Your task to perform on an android device: How much does a 2 bedroom apartment rent for in Los Angeles? Image 0: 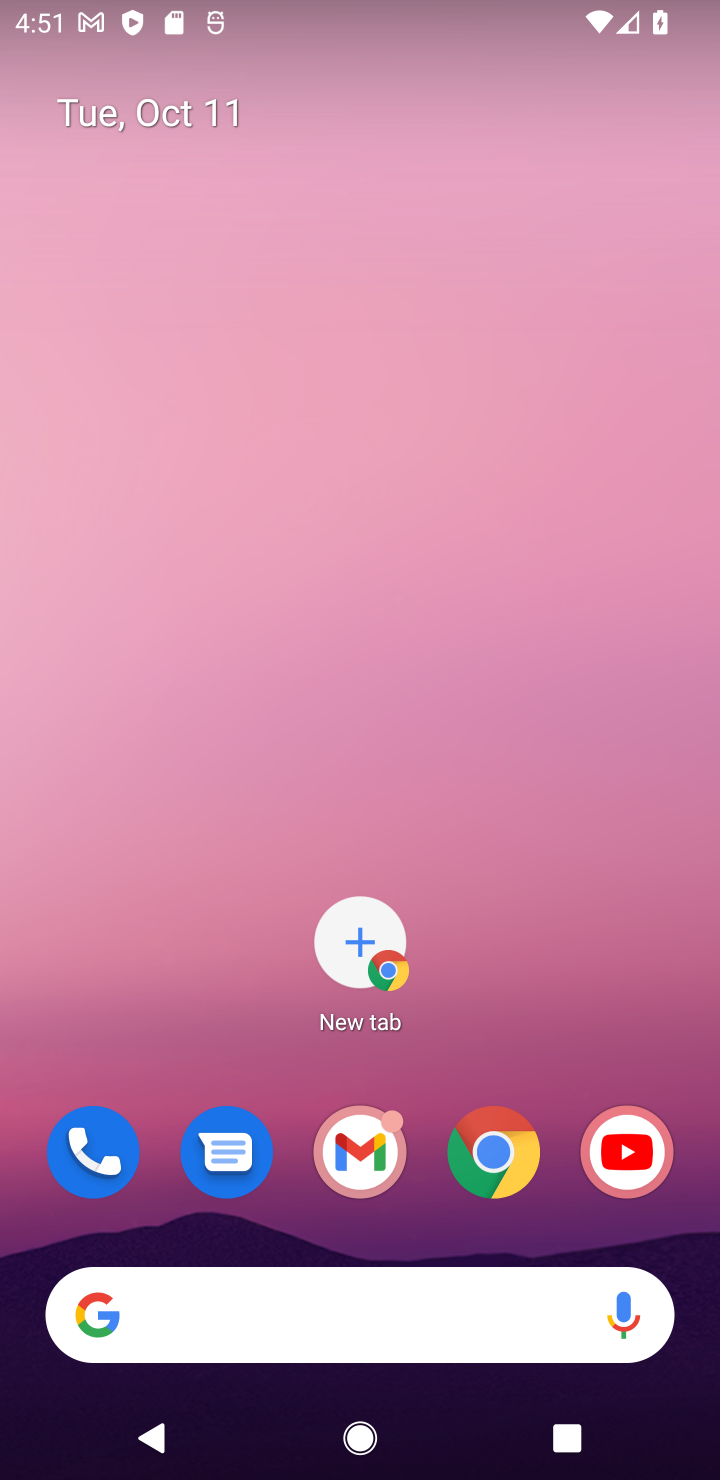
Step 0: click (482, 1141)
Your task to perform on an android device: How much does a 2 bedroom apartment rent for in Los Angeles? Image 1: 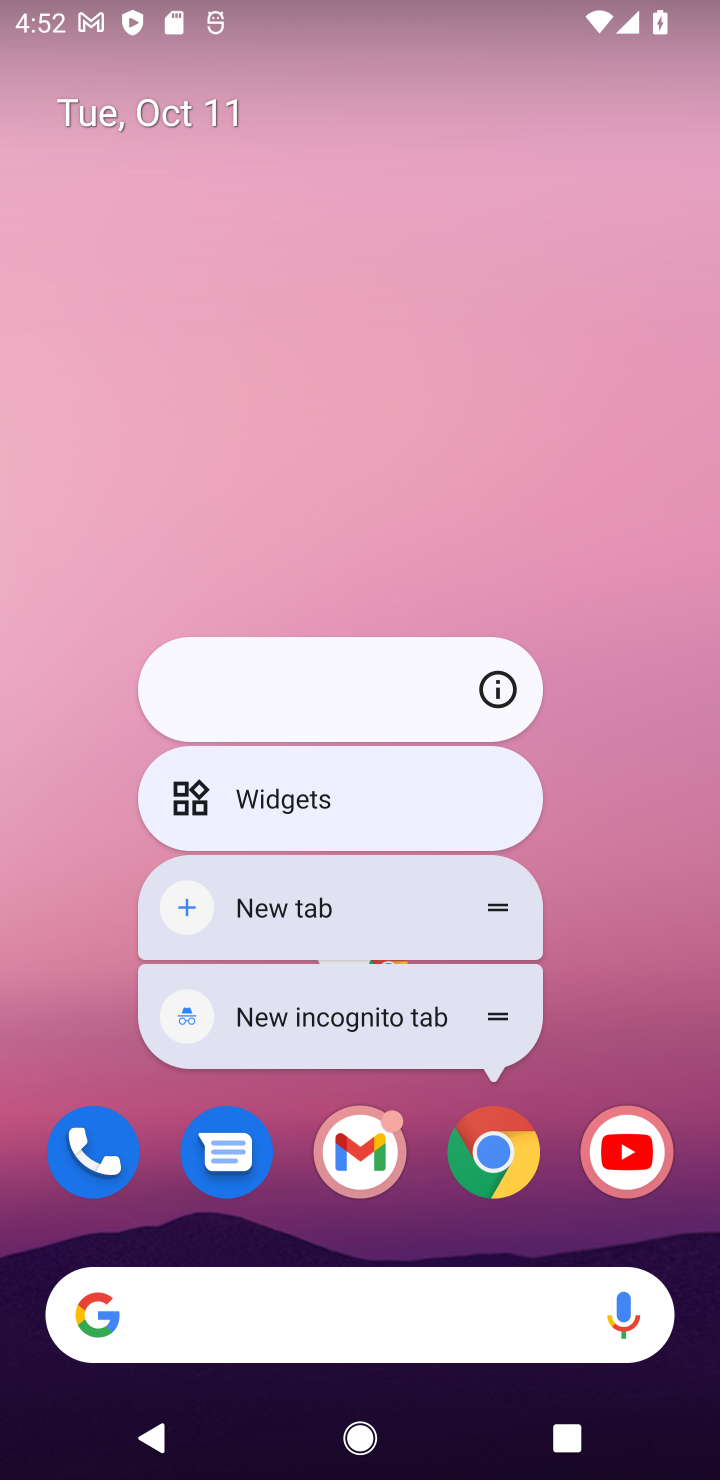
Step 1: click (321, 1230)
Your task to perform on an android device: How much does a 2 bedroom apartment rent for in Los Angeles? Image 2: 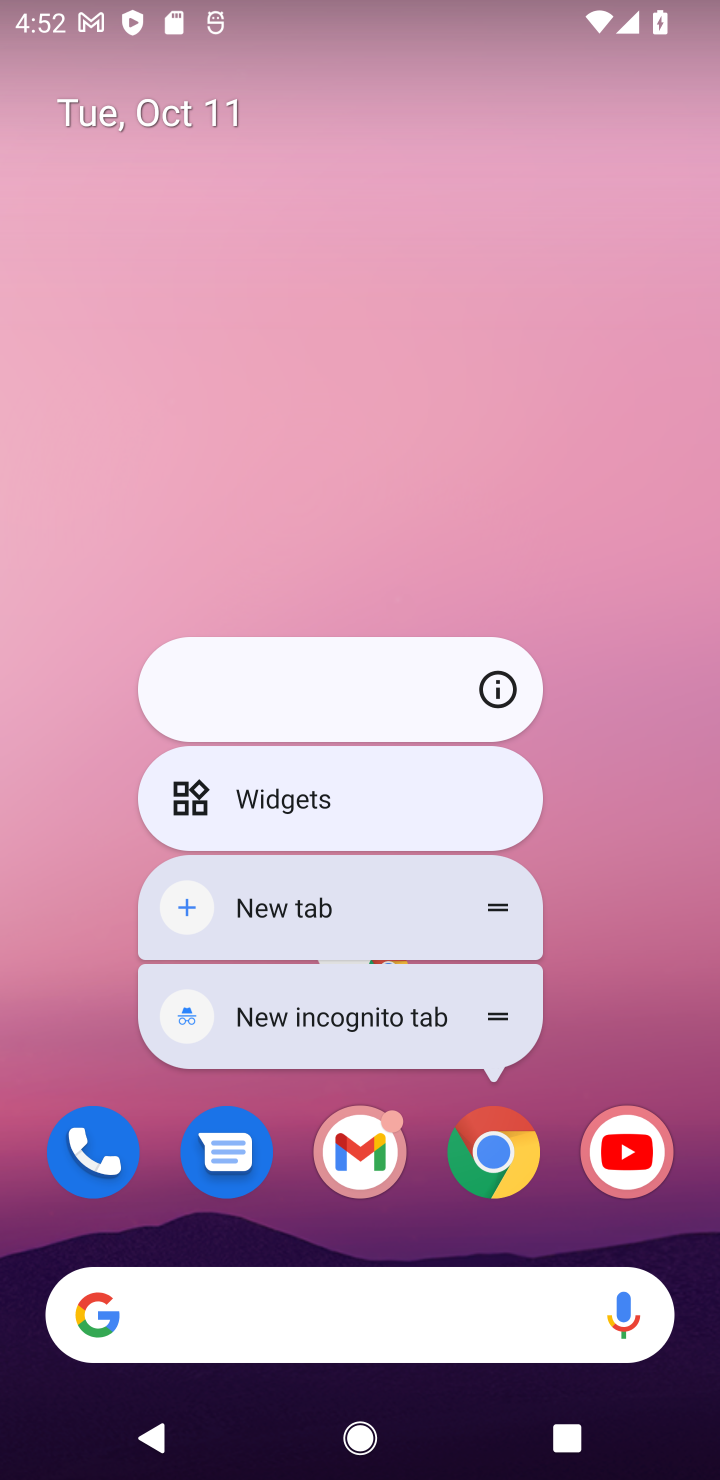
Step 2: drag from (310, 1172) to (540, 14)
Your task to perform on an android device: How much does a 2 bedroom apartment rent for in Los Angeles? Image 3: 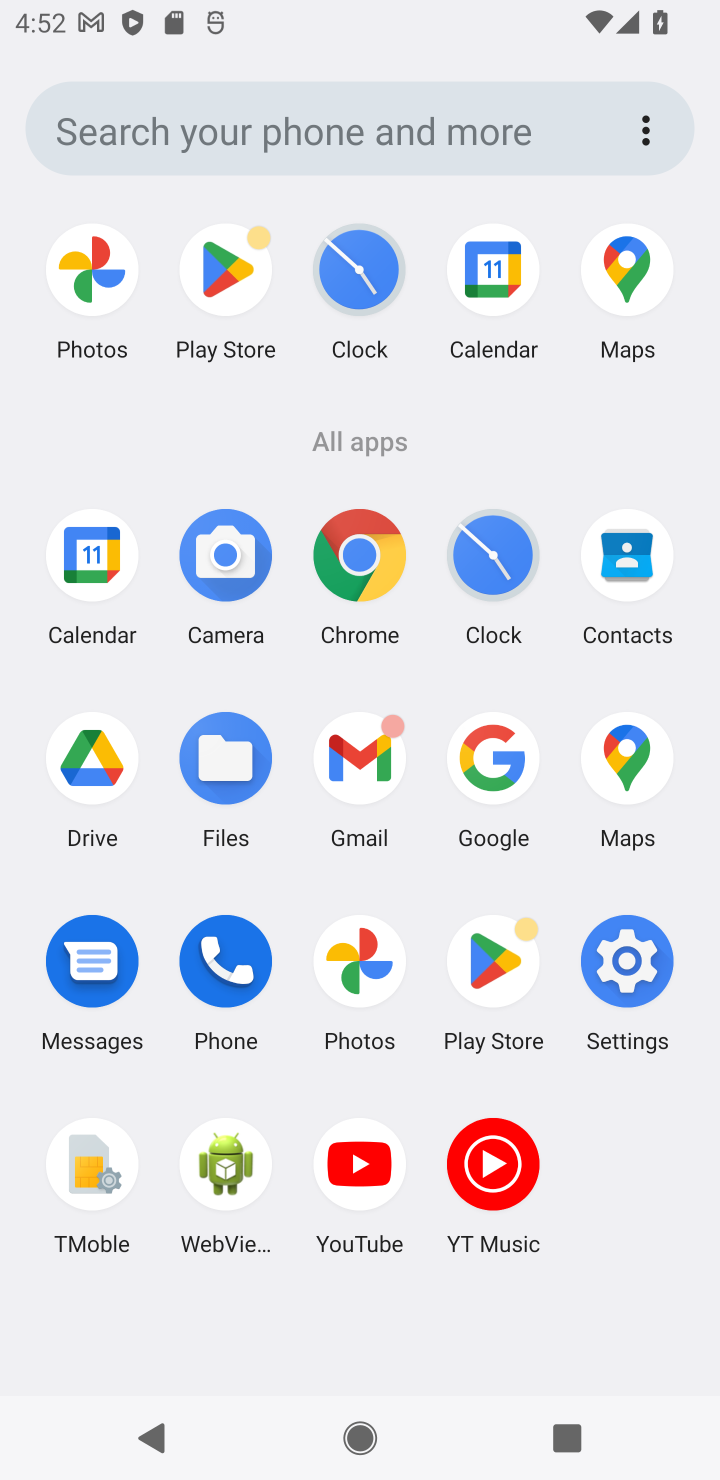
Step 3: click (352, 563)
Your task to perform on an android device: How much does a 2 bedroom apartment rent for in Los Angeles? Image 4: 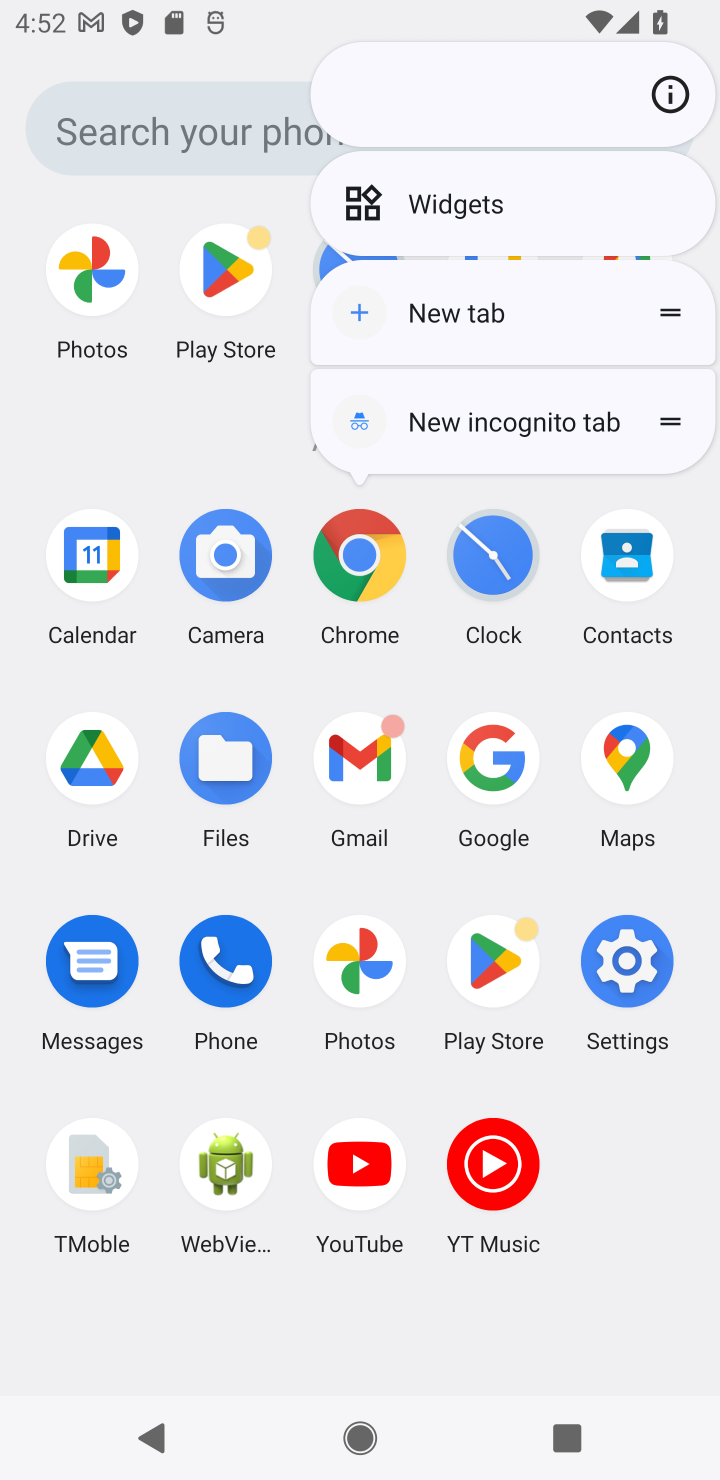
Step 4: click (352, 584)
Your task to perform on an android device: How much does a 2 bedroom apartment rent for in Los Angeles? Image 5: 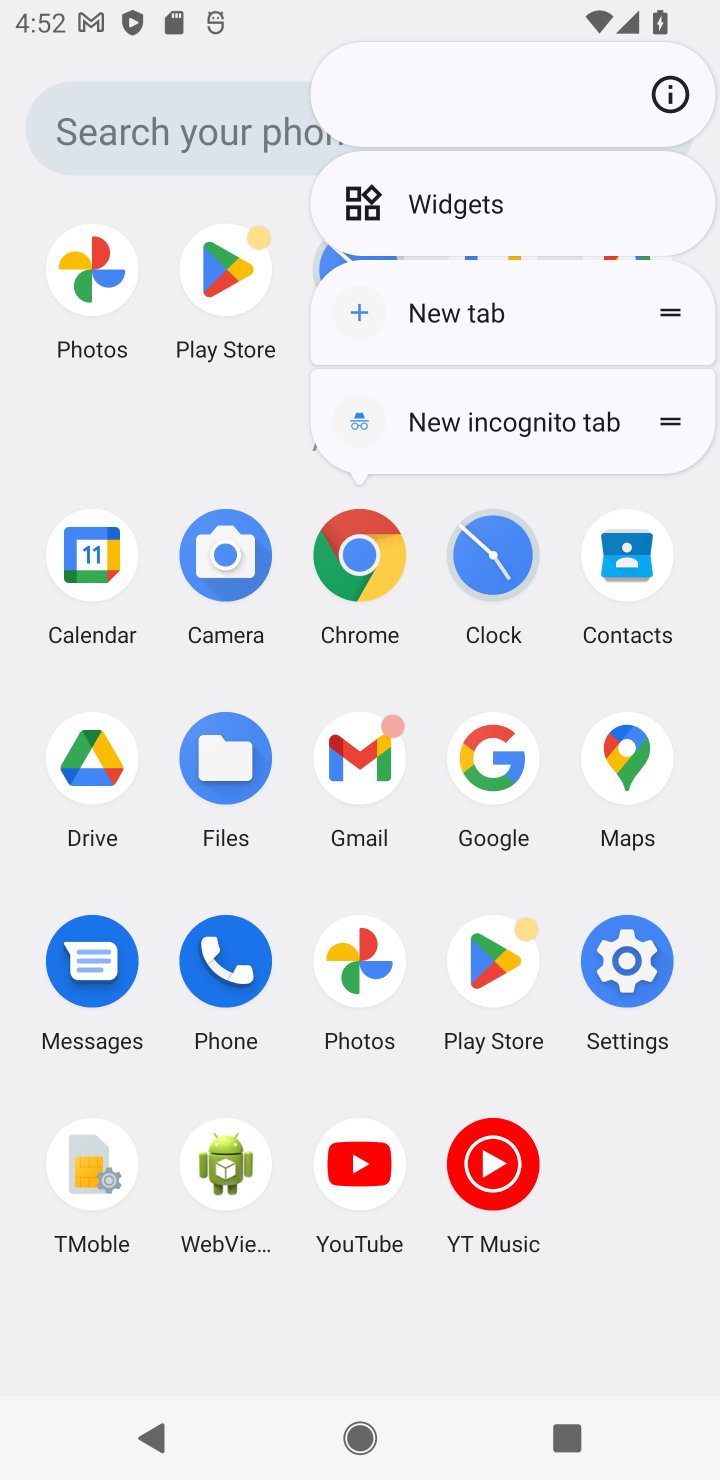
Step 5: click (392, 506)
Your task to perform on an android device: How much does a 2 bedroom apartment rent for in Los Angeles? Image 6: 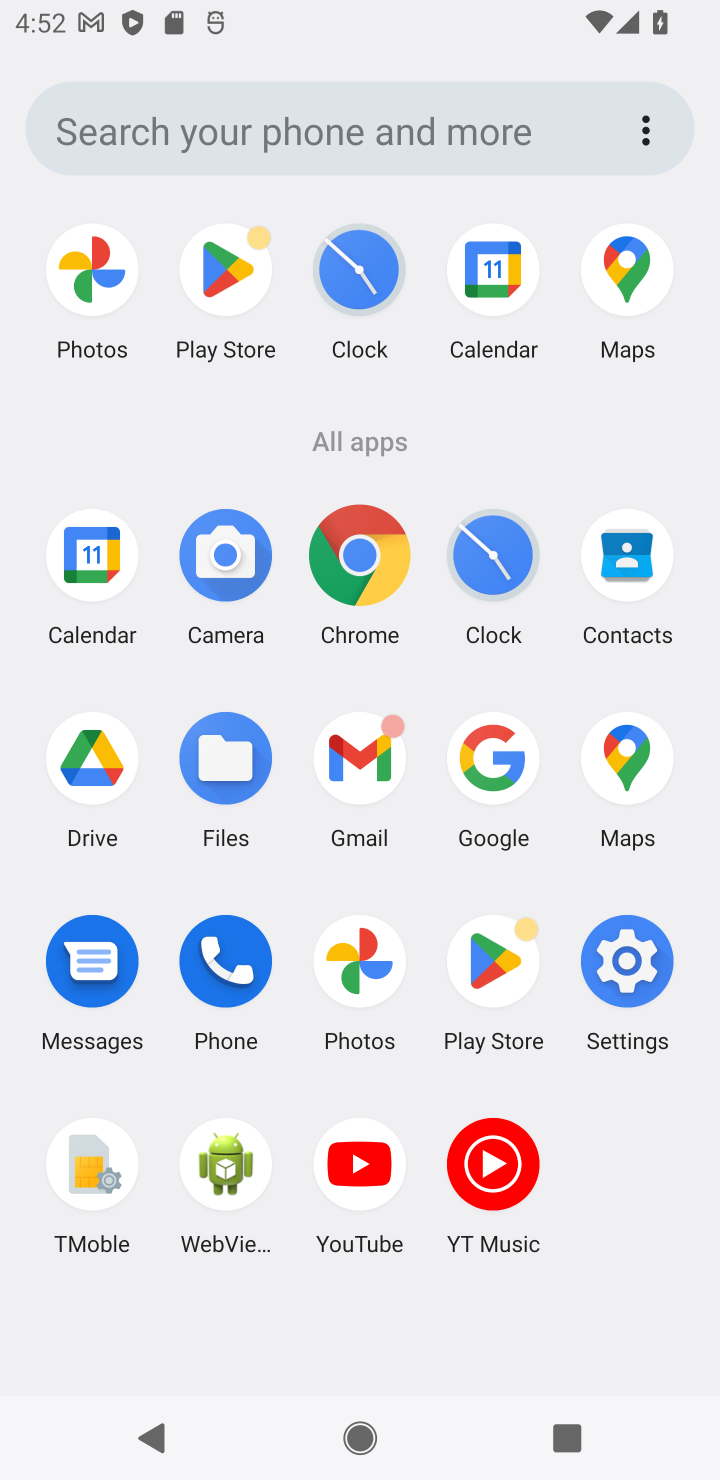
Step 6: click (357, 559)
Your task to perform on an android device: How much does a 2 bedroom apartment rent for in Los Angeles? Image 7: 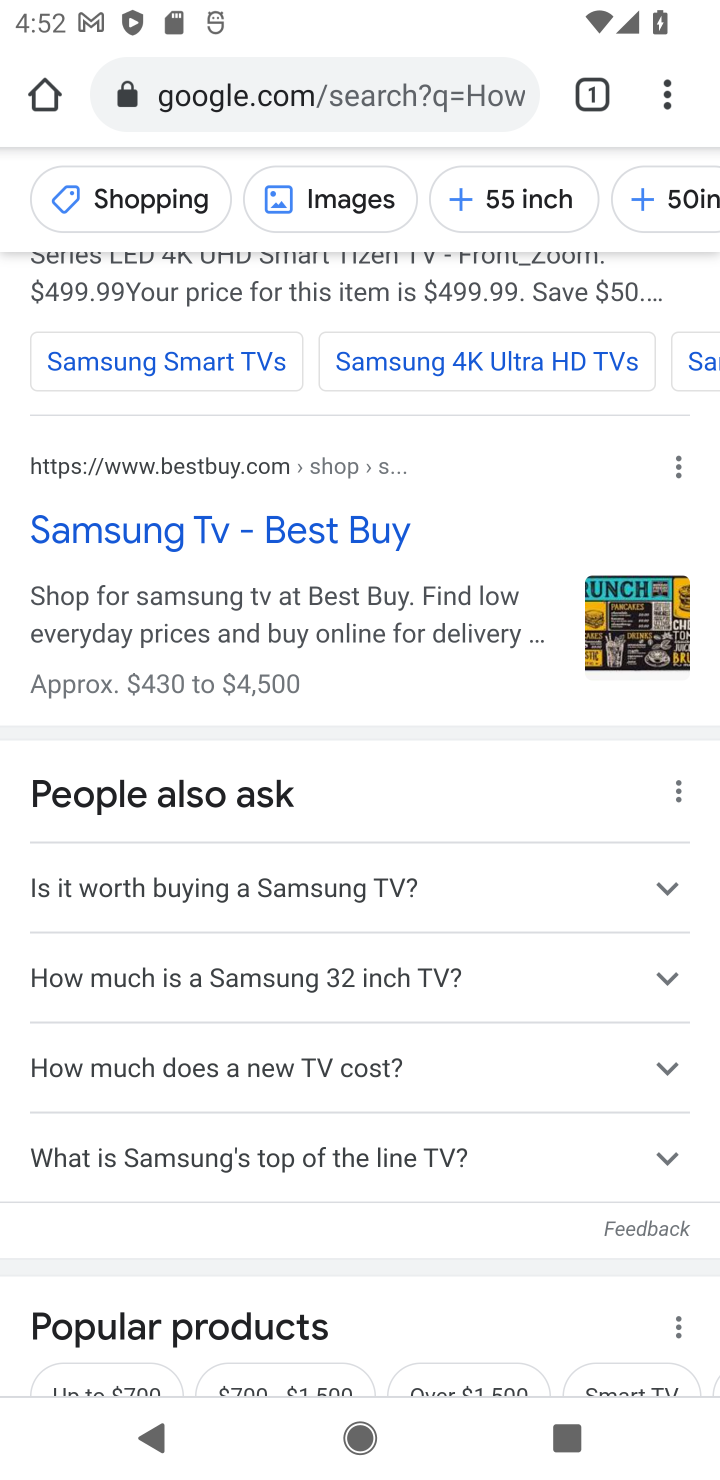
Step 7: click (205, 94)
Your task to perform on an android device: How much does a 2 bedroom apartment rent for in Los Angeles? Image 8: 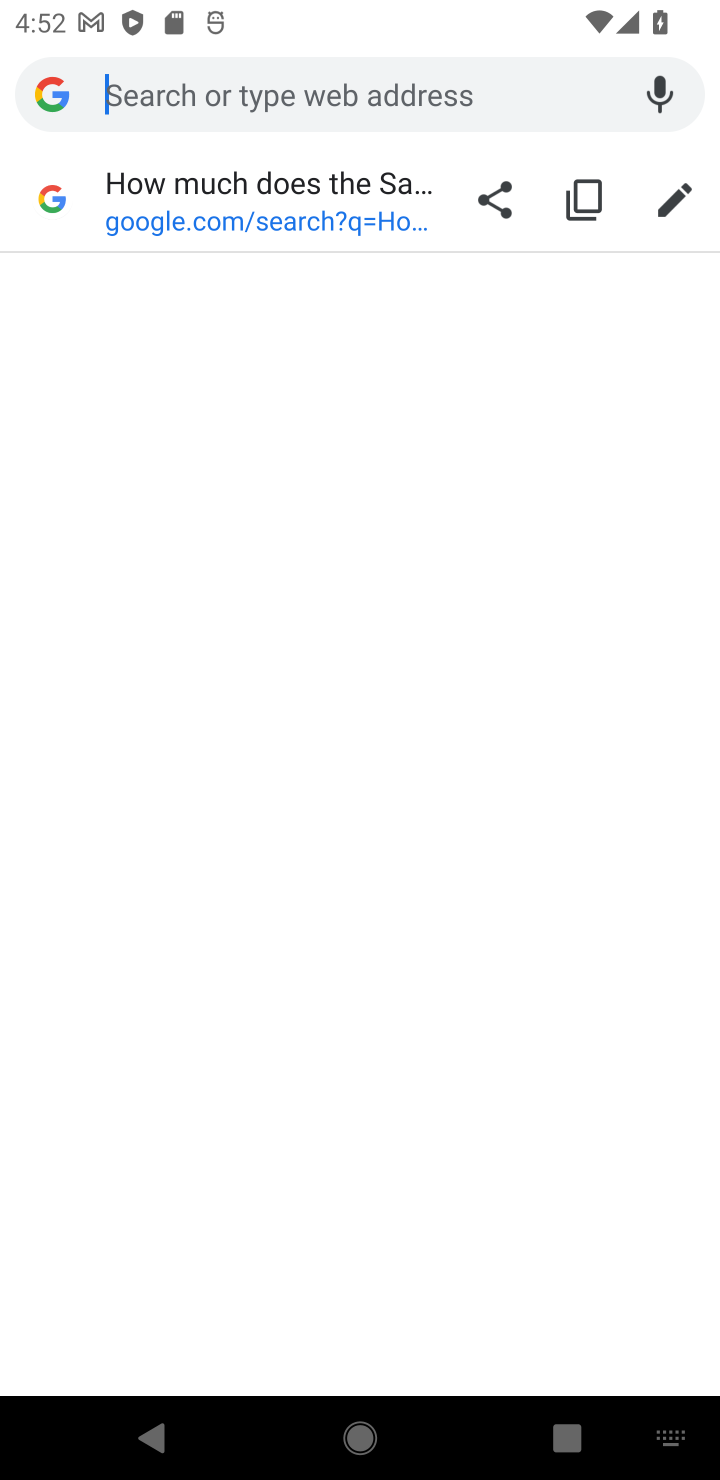
Step 8: type "How much does a 2 bedroom apartment rent for in Los Angeles?"
Your task to perform on an android device: How much does a 2 bedroom apartment rent for in Los Angeles? Image 9: 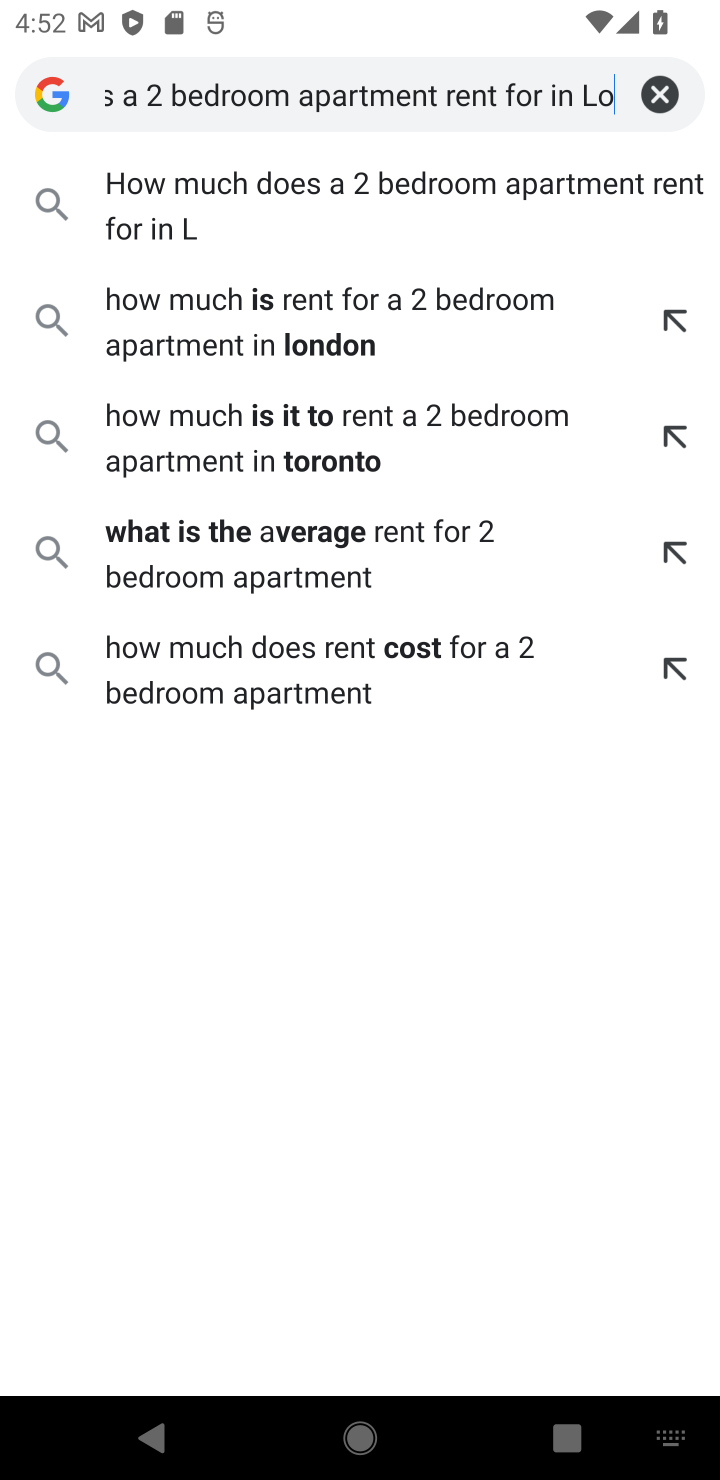
Step 9: type ""
Your task to perform on an android device: How much does a 2 bedroom apartment rent for in Los Angeles? Image 10: 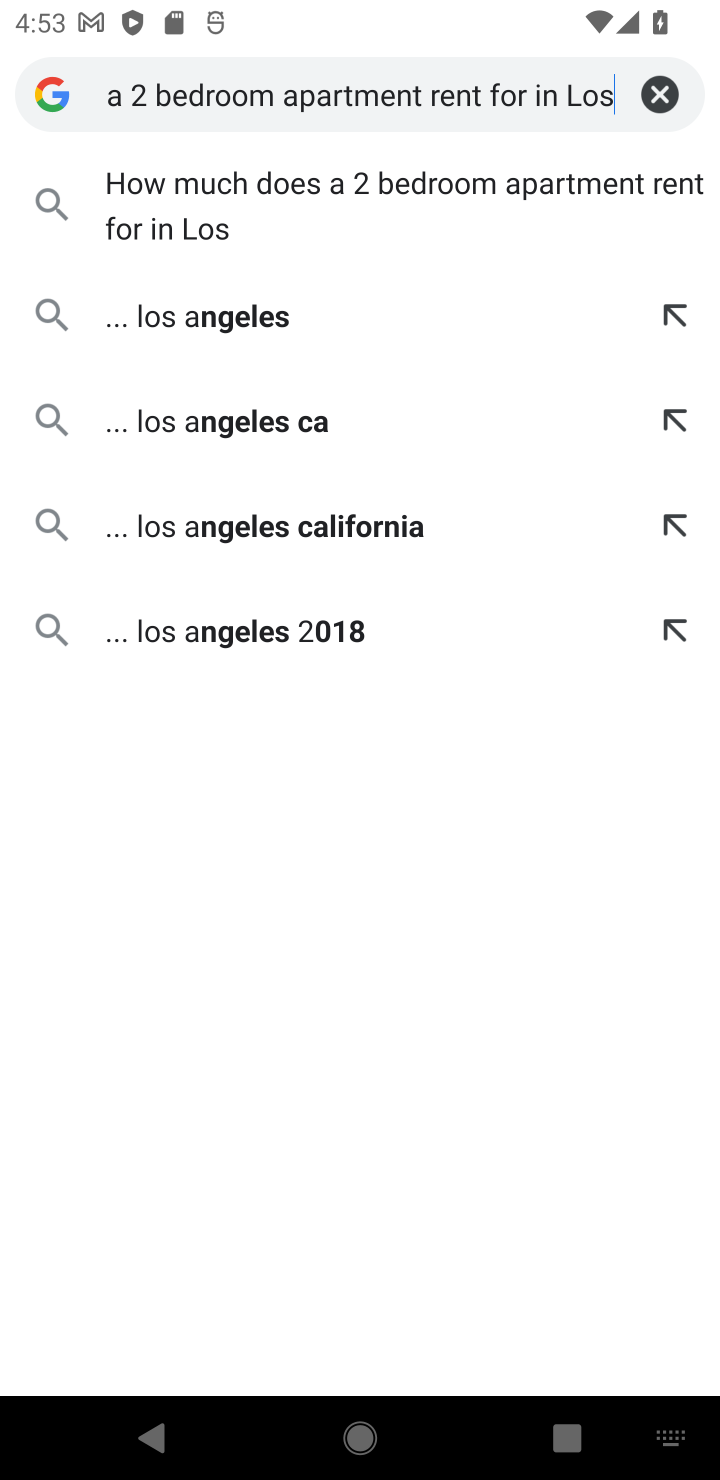
Step 10: press enter
Your task to perform on an android device: How much does a 2 bedroom apartment rent for in Los Angeles? Image 11: 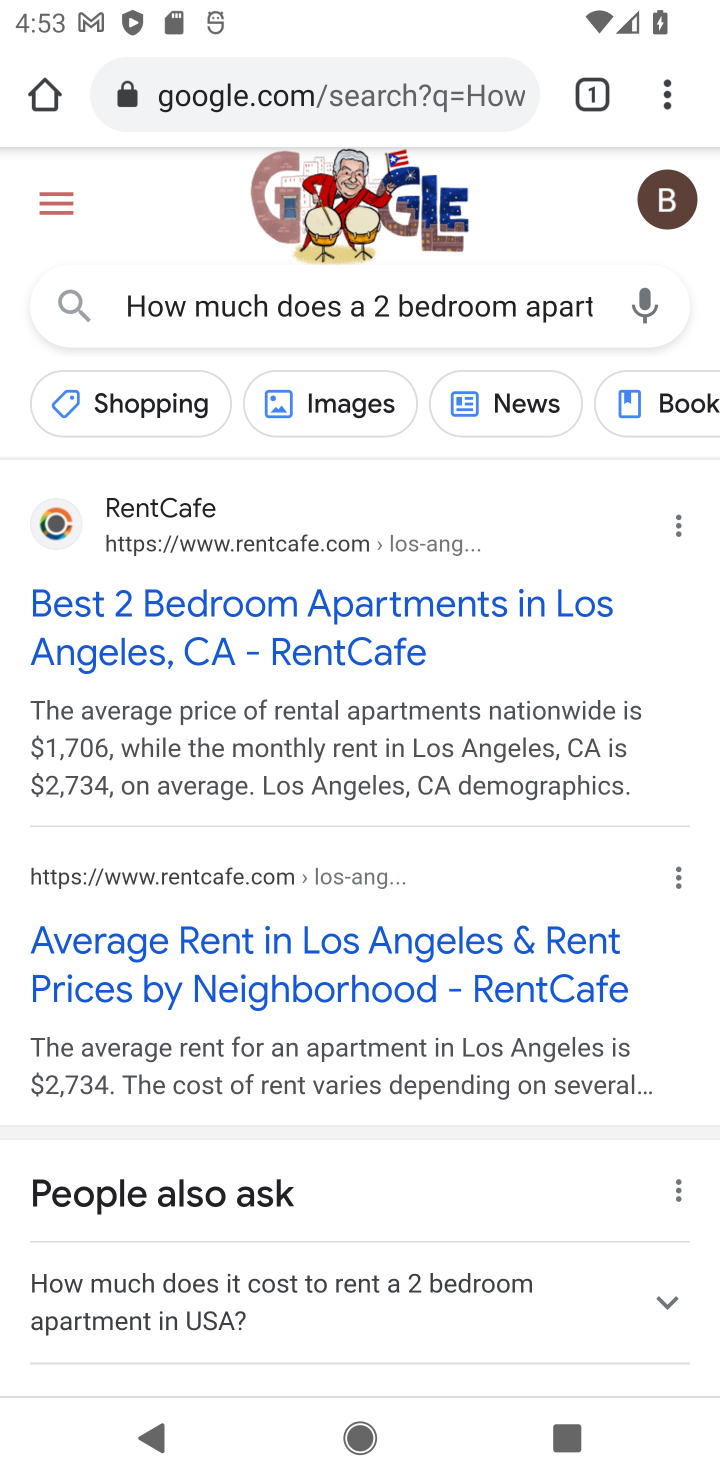
Step 11: click (110, 608)
Your task to perform on an android device: How much does a 2 bedroom apartment rent for in Los Angeles? Image 12: 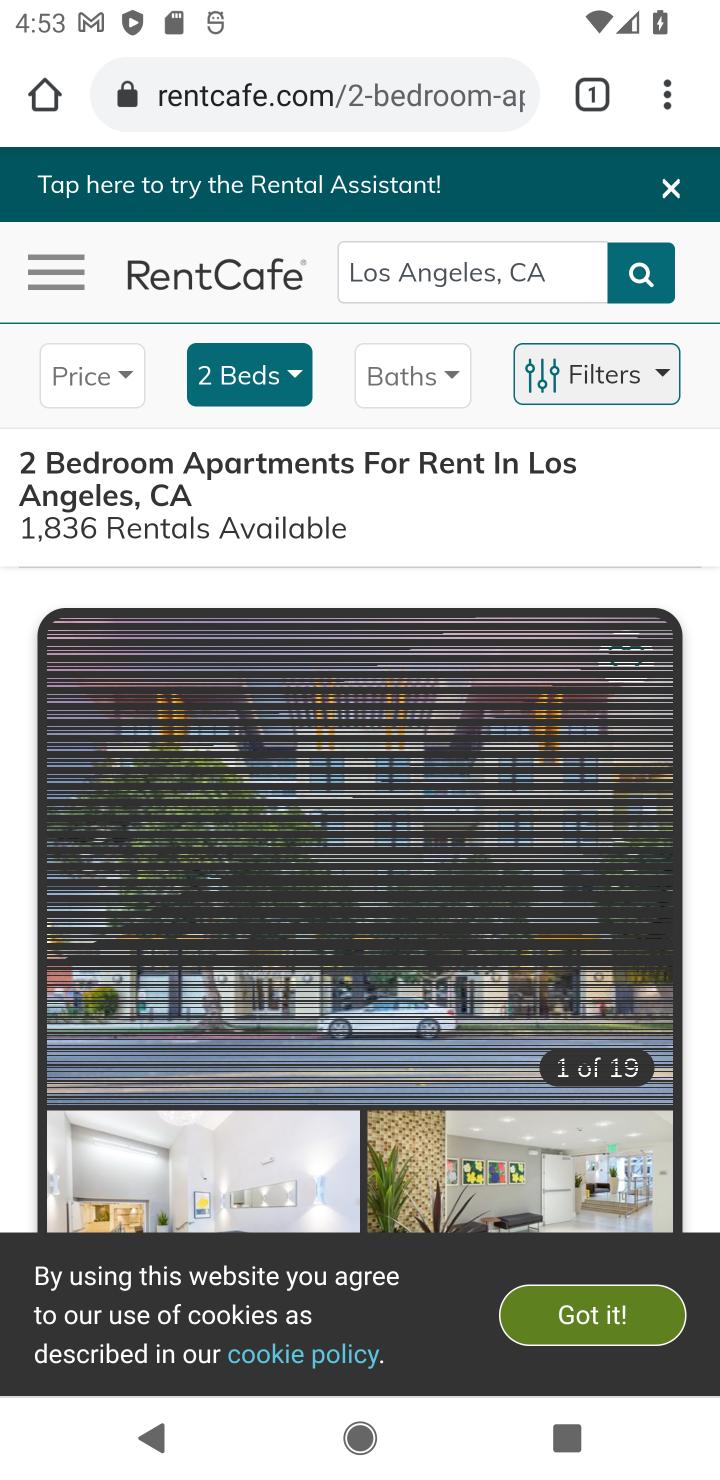
Step 12: drag from (437, 956) to (478, 428)
Your task to perform on an android device: How much does a 2 bedroom apartment rent for in Los Angeles? Image 13: 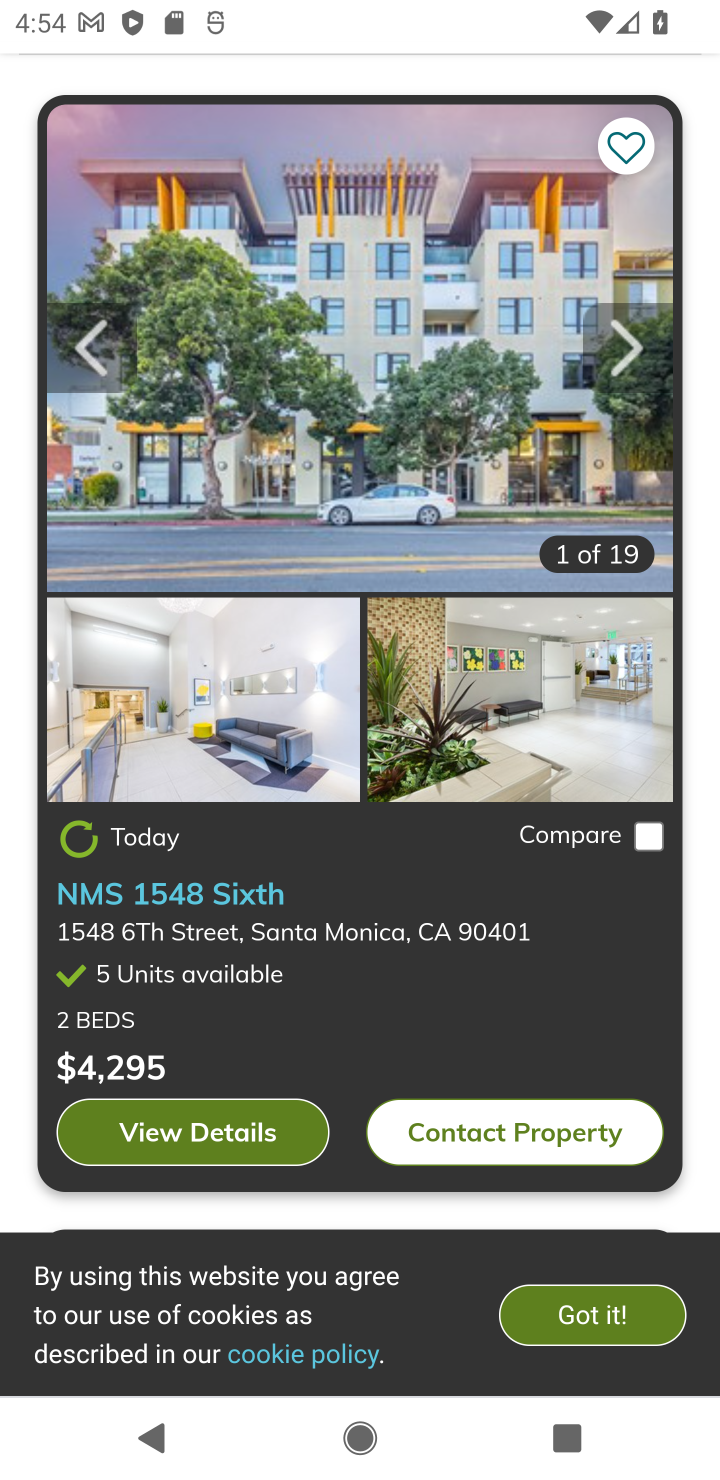
Step 13: drag from (559, 461) to (378, 434)
Your task to perform on an android device: How much does a 2 bedroom apartment rent for in Los Angeles? Image 14: 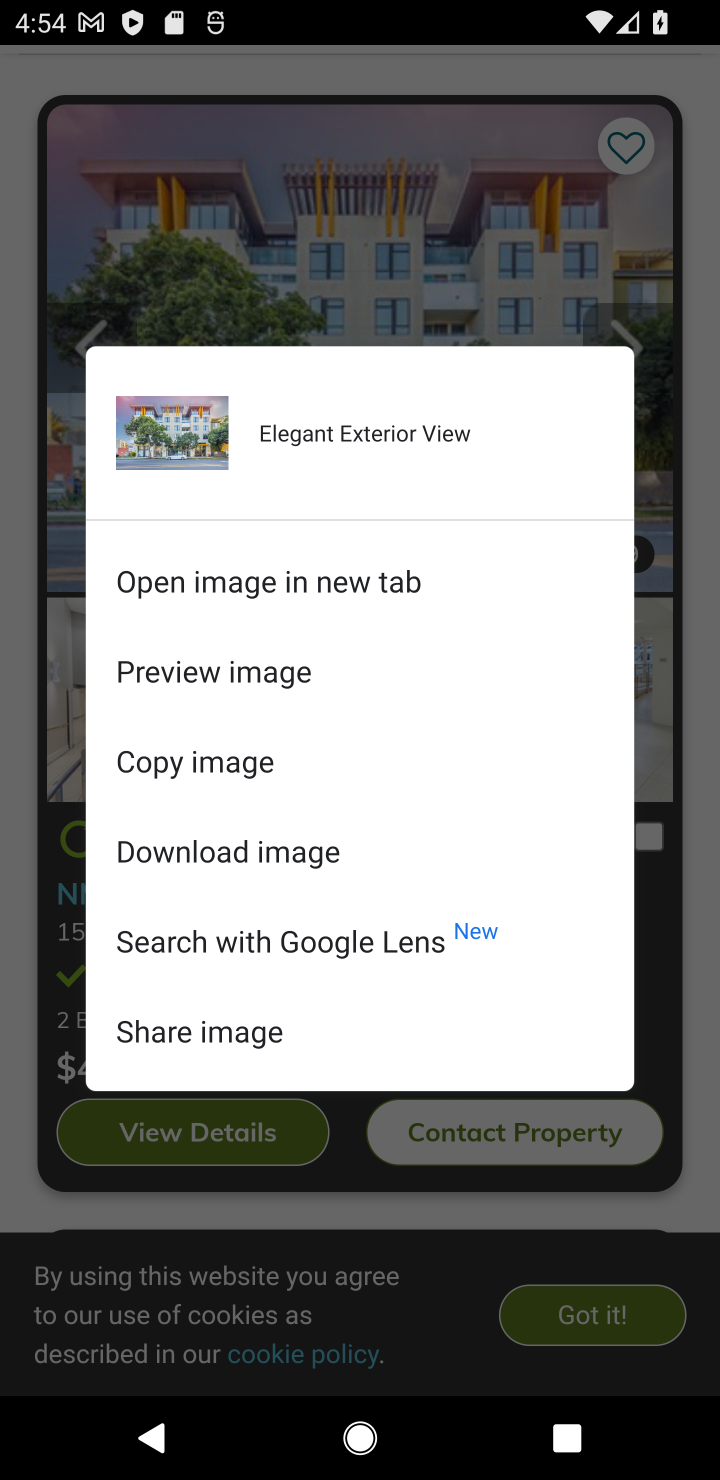
Step 14: click (455, 252)
Your task to perform on an android device: How much does a 2 bedroom apartment rent for in Los Angeles? Image 15: 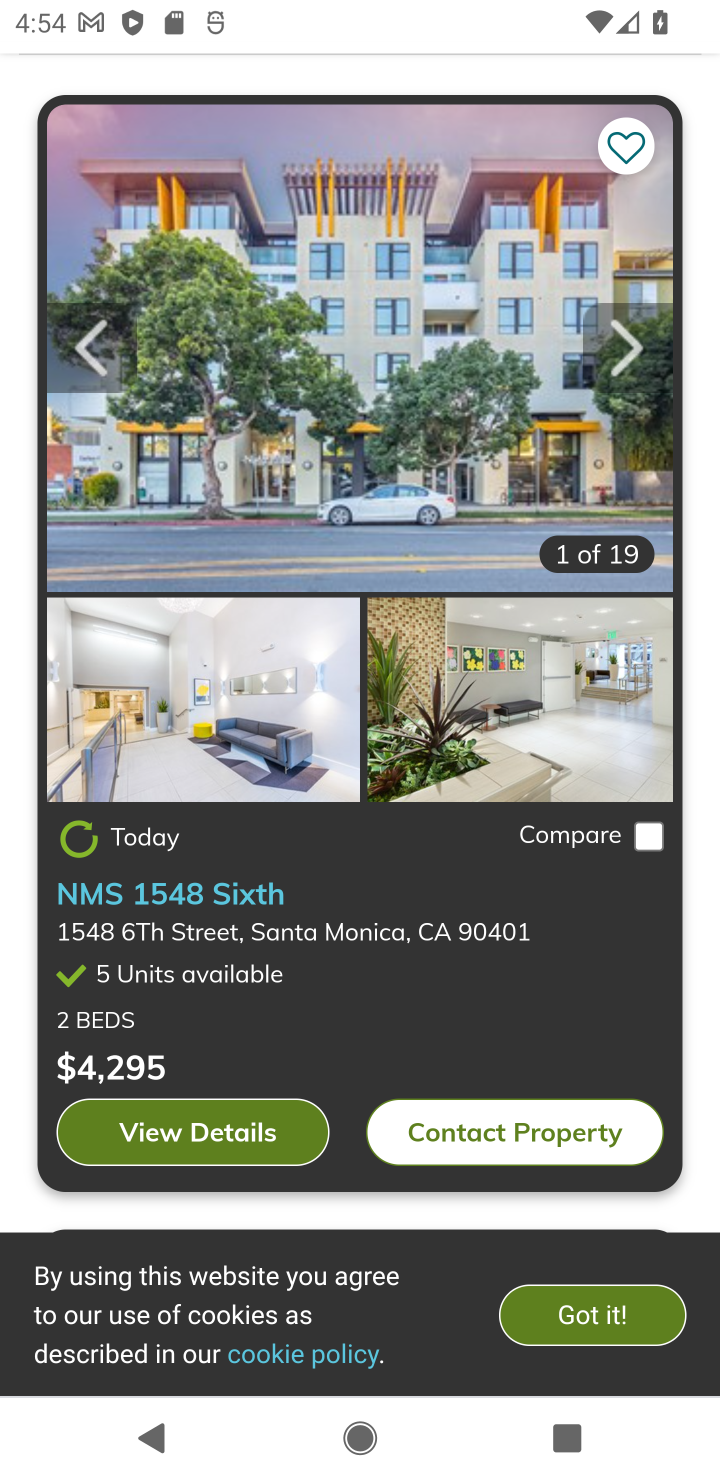
Step 15: click (432, 61)
Your task to perform on an android device: How much does a 2 bedroom apartment rent for in Los Angeles? Image 16: 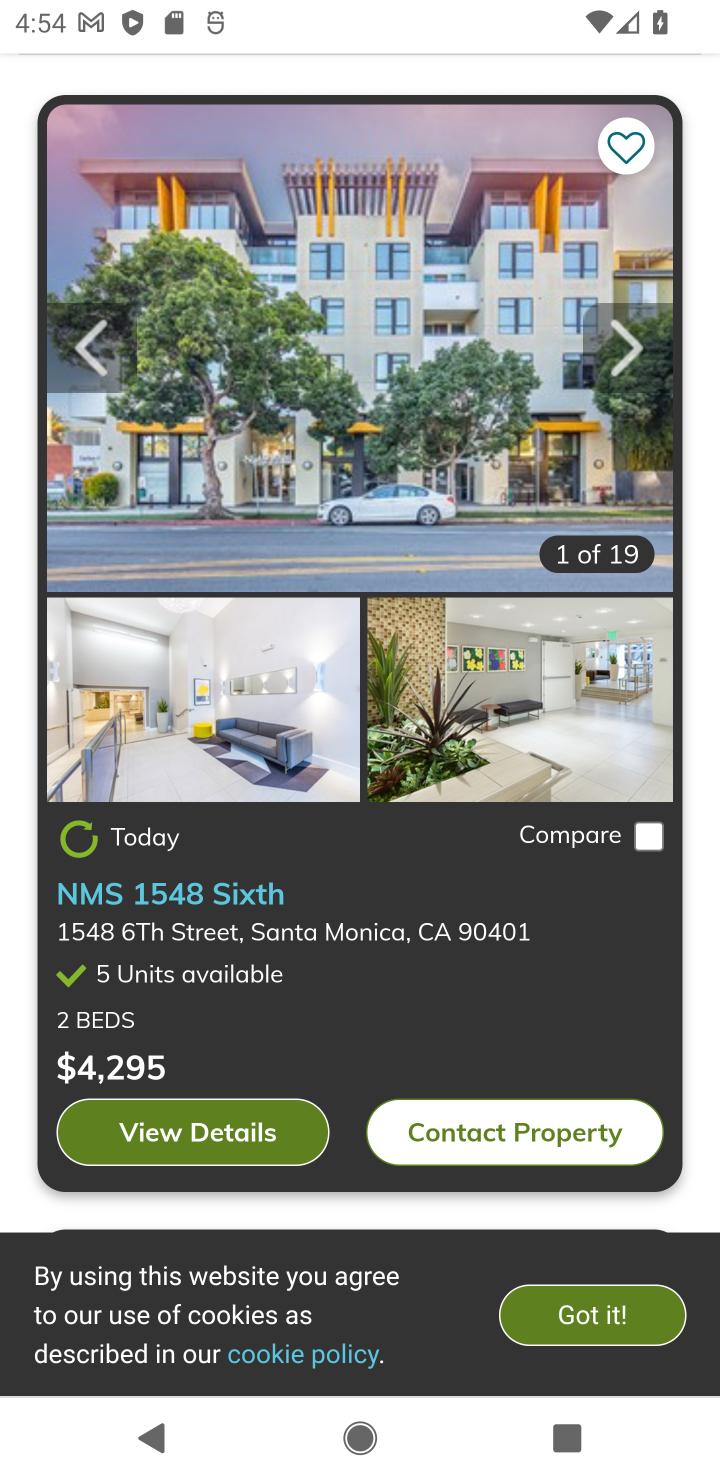
Step 16: click (296, 161)
Your task to perform on an android device: How much does a 2 bedroom apartment rent for in Los Angeles? Image 17: 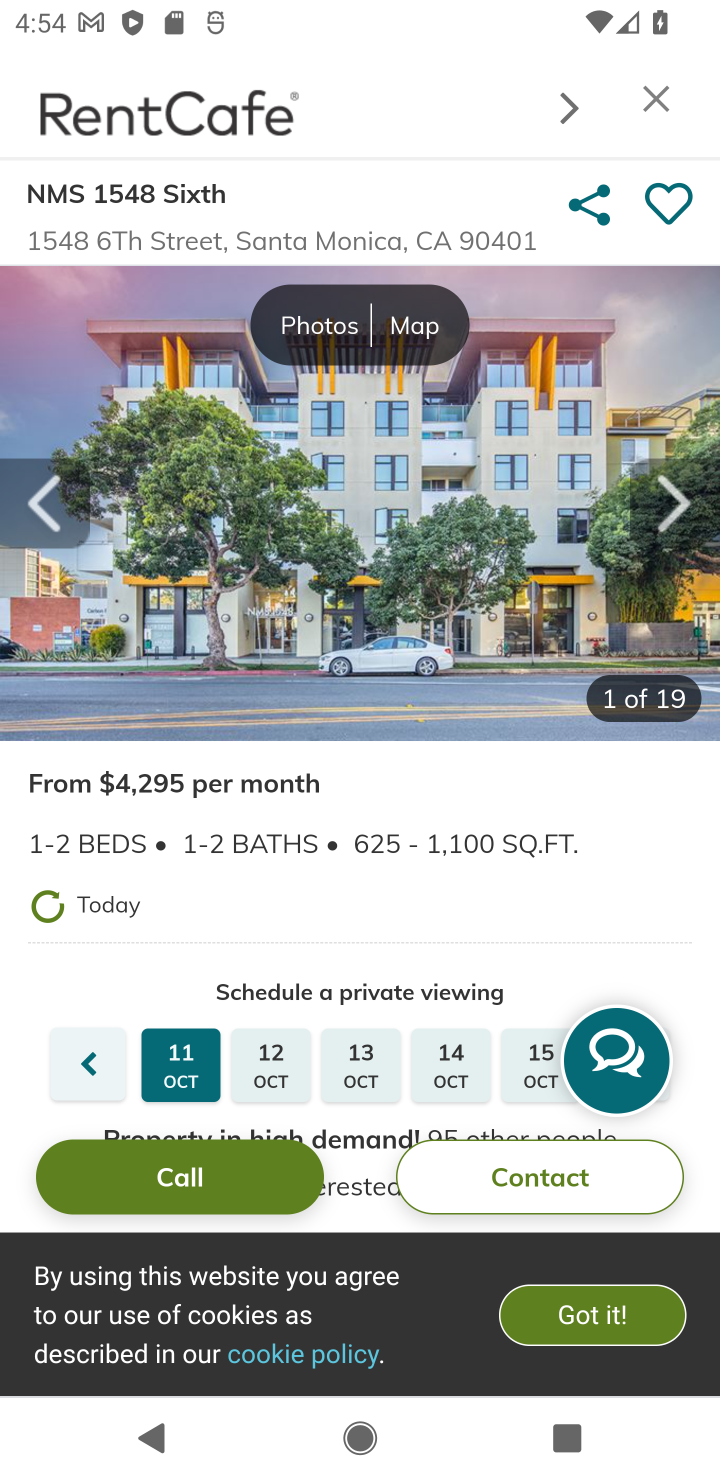
Step 17: click (458, 326)
Your task to perform on an android device: How much does a 2 bedroom apartment rent for in Los Angeles? Image 18: 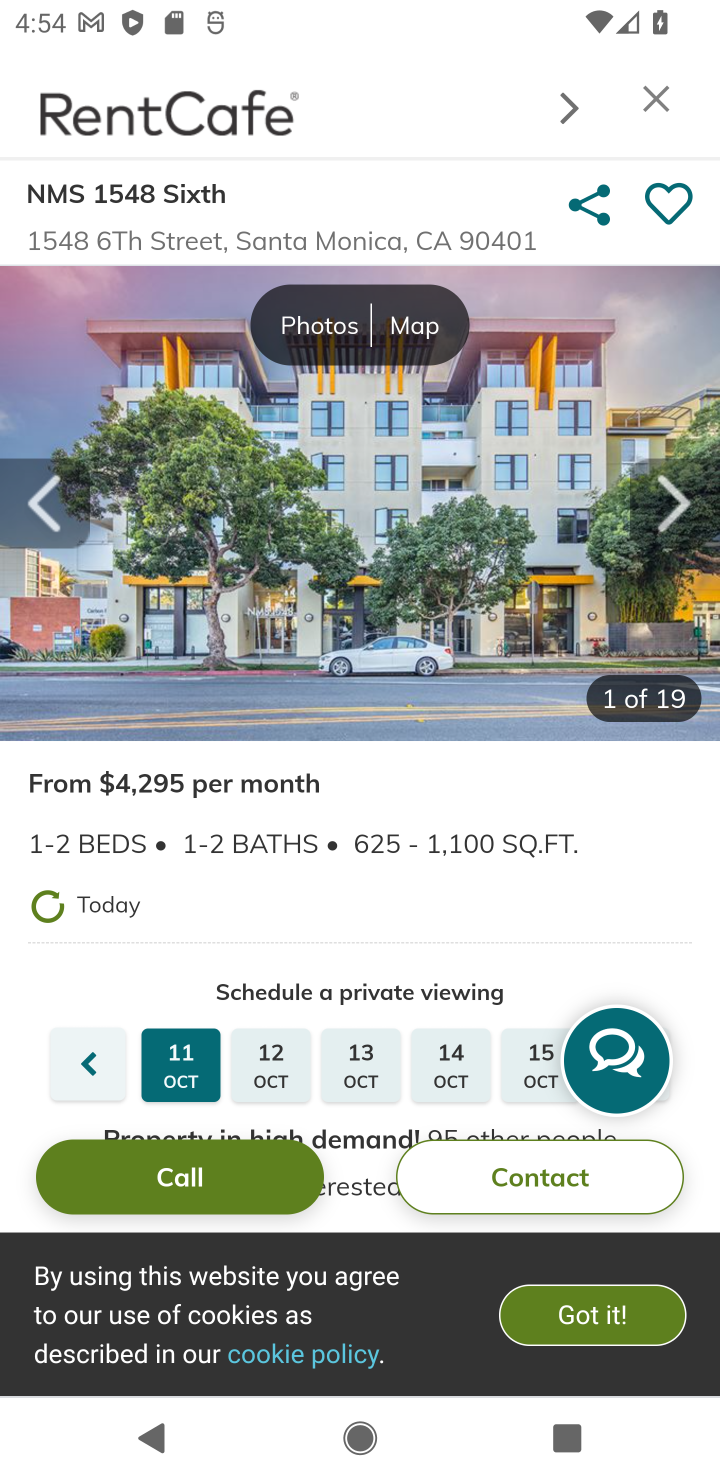
Step 18: task complete